Your task to perform on an android device: change the clock display to analog Image 0: 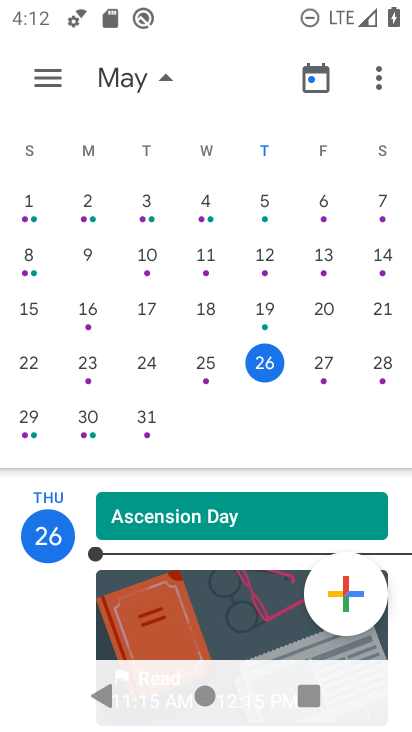
Step 0: press home button
Your task to perform on an android device: change the clock display to analog Image 1: 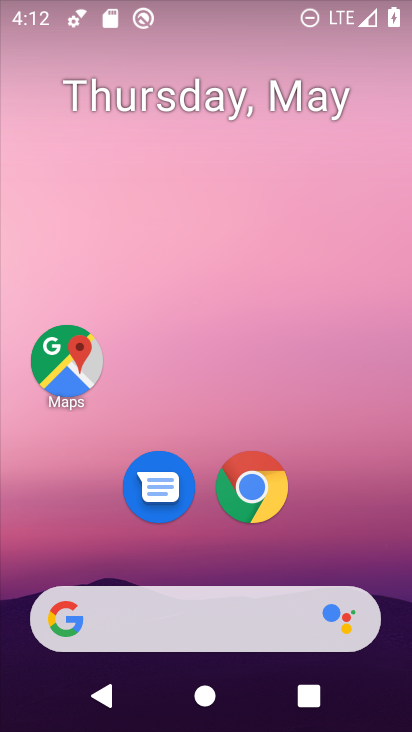
Step 1: drag from (250, 567) to (245, 101)
Your task to perform on an android device: change the clock display to analog Image 2: 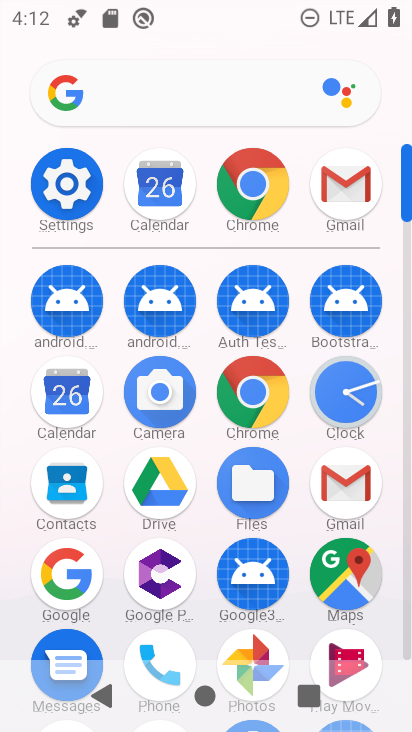
Step 2: click (346, 402)
Your task to perform on an android device: change the clock display to analog Image 3: 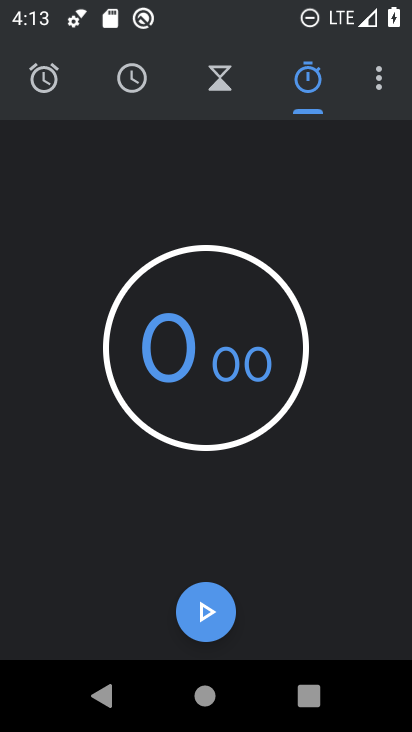
Step 3: click (380, 86)
Your task to perform on an android device: change the clock display to analog Image 4: 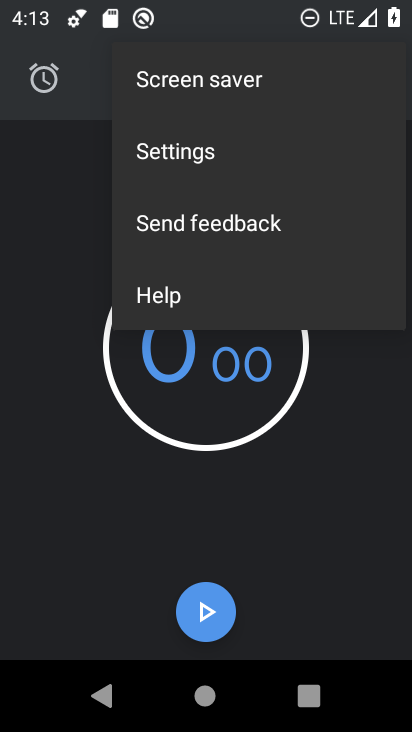
Step 4: click (208, 151)
Your task to perform on an android device: change the clock display to analog Image 5: 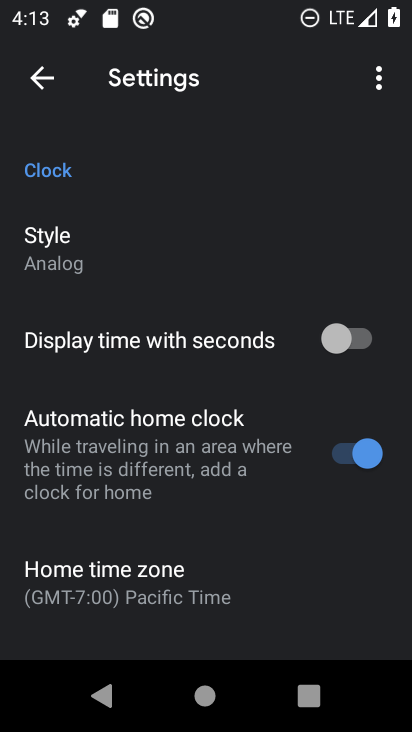
Step 5: task complete